Your task to perform on an android device: star an email in the gmail app Image 0: 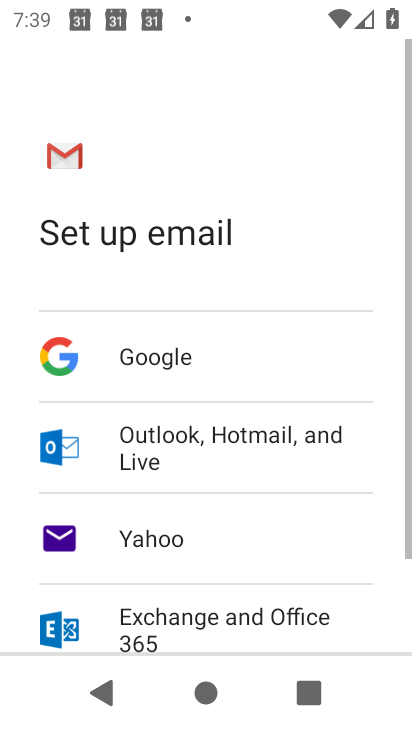
Step 0: press home button
Your task to perform on an android device: star an email in the gmail app Image 1: 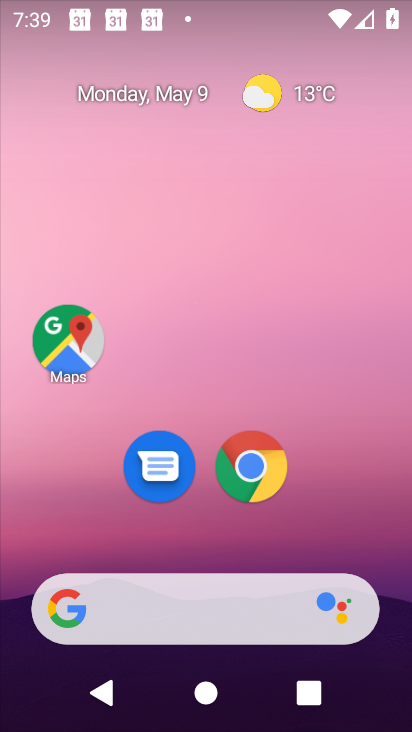
Step 1: drag from (294, 517) to (297, 251)
Your task to perform on an android device: star an email in the gmail app Image 2: 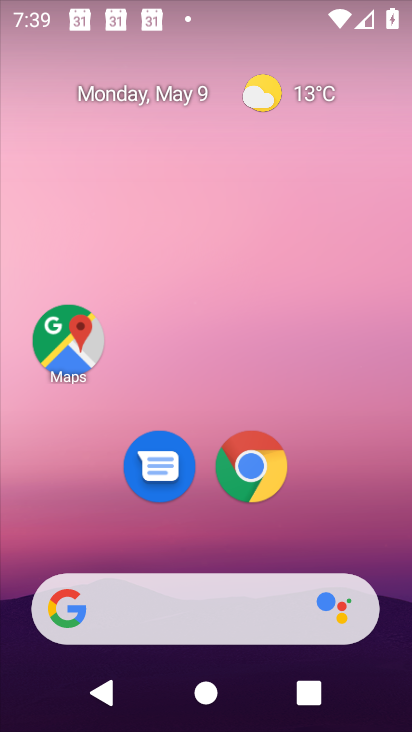
Step 2: drag from (319, 524) to (279, 170)
Your task to perform on an android device: star an email in the gmail app Image 3: 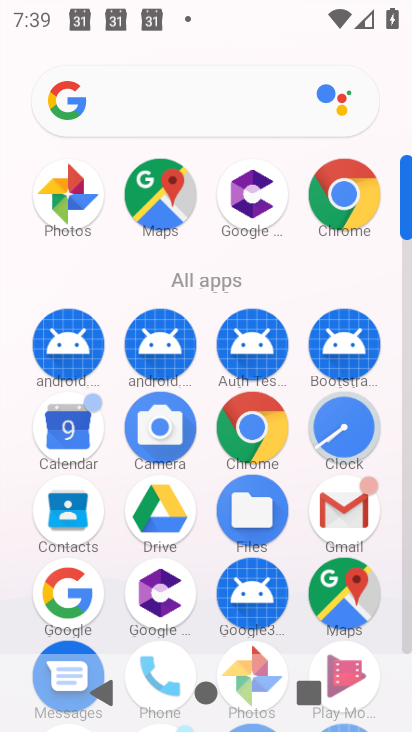
Step 3: click (346, 518)
Your task to perform on an android device: star an email in the gmail app Image 4: 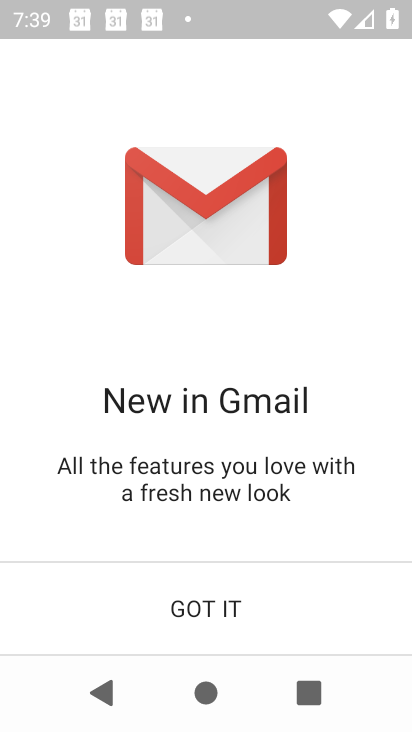
Step 4: click (213, 588)
Your task to perform on an android device: star an email in the gmail app Image 5: 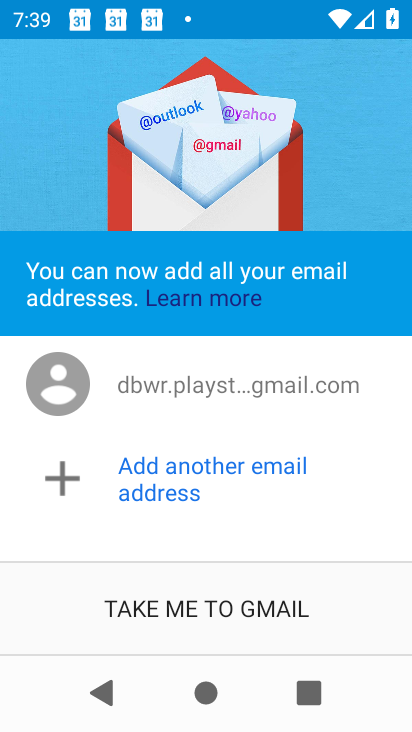
Step 5: click (213, 588)
Your task to perform on an android device: star an email in the gmail app Image 6: 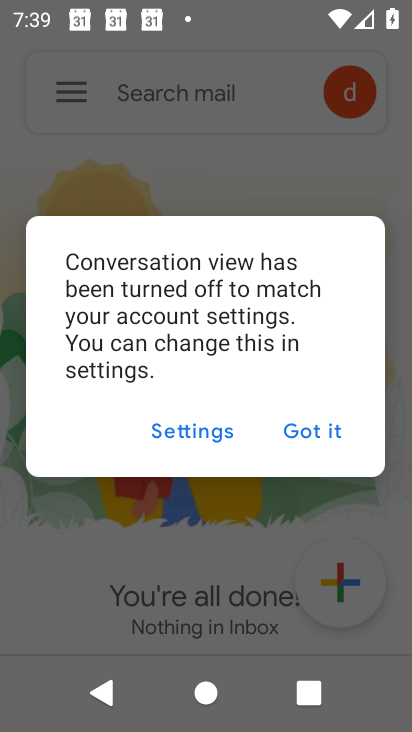
Step 6: click (301, 431)
Your task to perform on an android device: star an email in the gmail app Image 7: 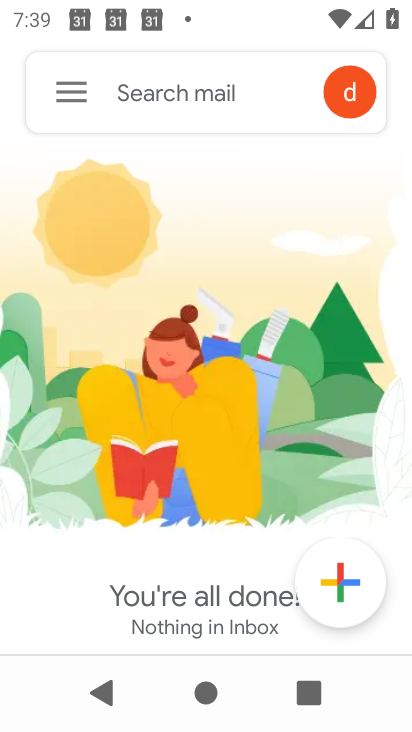
Step 7: click (70, 85)
Your task to perform on an android device: star an email in the gmail app Image 8: 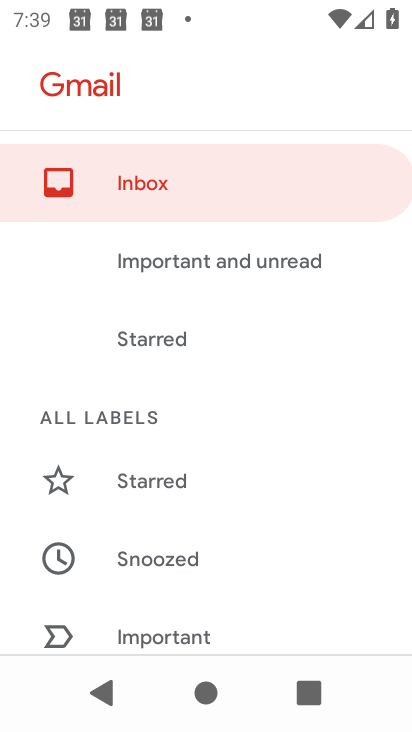
Step 8: click (168, 333)
Your task to perform on an android device: star an email in the gmail app Image 9: 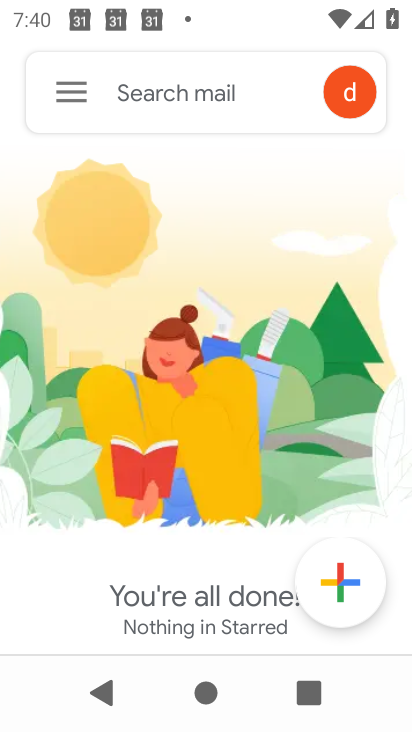
Step 9: task complete